Your task to perform on an android device: turn off priority inbox in the gmail app Image 0: 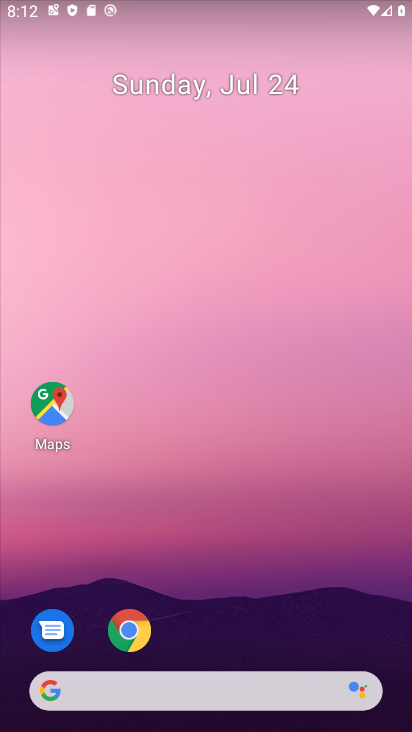
Step 0: drag from (170, 611) to (189, 191)
Your task to perform on an android device: turn off priority inbox in the gmail app Image 1: 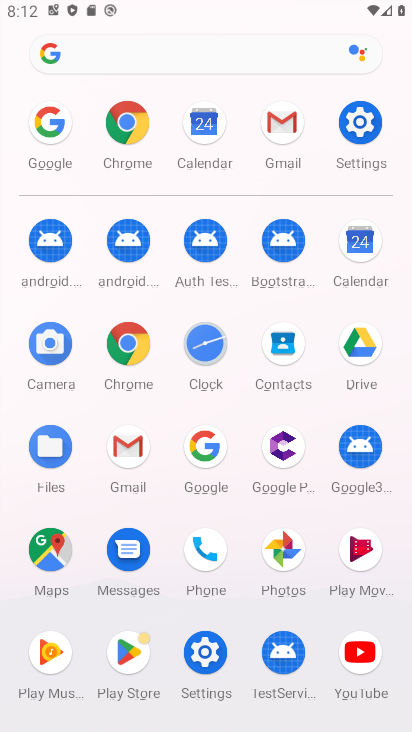
Step 1: click (280, 138)
Your task to perform on an android device: turn off priority inbox in the gmail app Image 2: 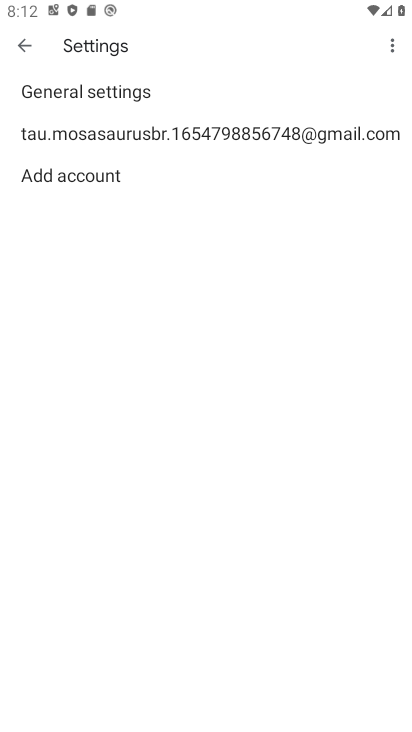
Step 2: click (209, 131)
Your task to perform on an android device: turn off priority inbox in the gmail app Image 3: 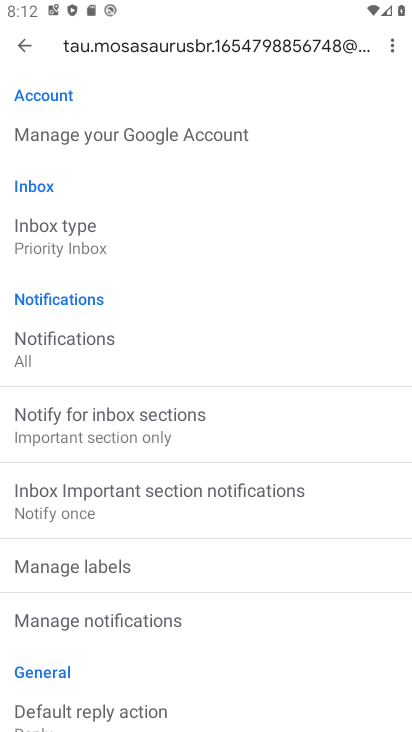
Step 3: click (149, 250)
Your task to perform on an android device: turn off priority inbox in the gmail app Image 4: 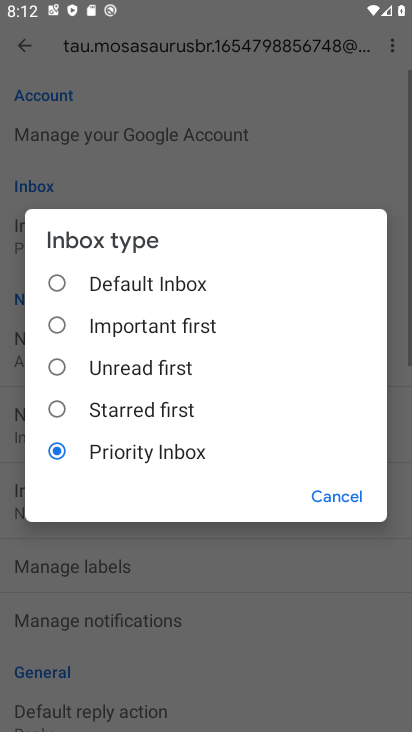
Step 4: click (114, 274)
Your task to perform on an android device: turn off priority inbox in the gmail app Image 5: 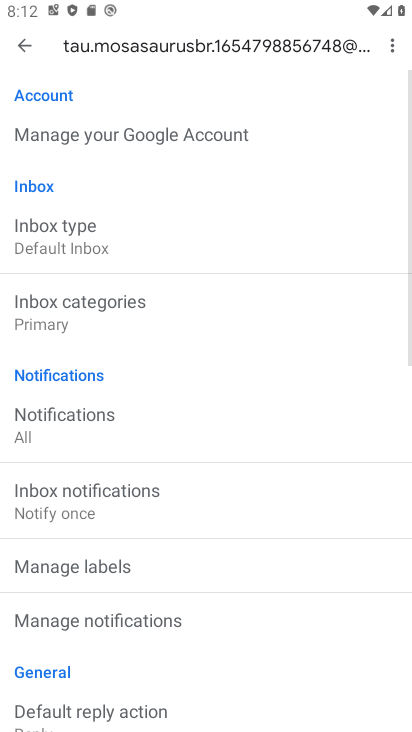
Step 5: task complete